Your task to perform on an android device: Open network settings Image 0: 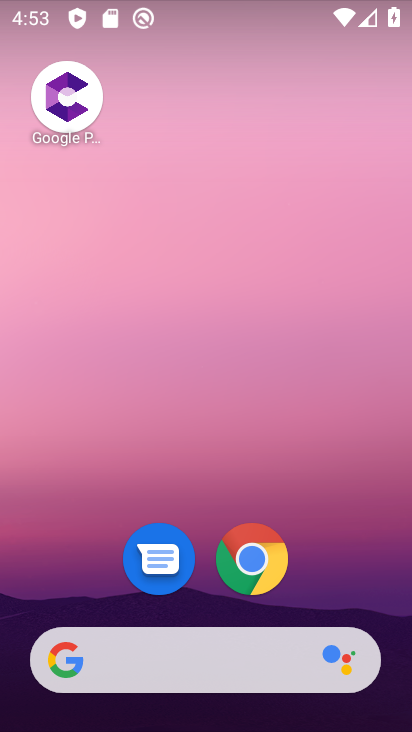
Step 0: drag from (208, 609) to (150, 282)
Your task to perform on an android device: Open network settings Image 1: 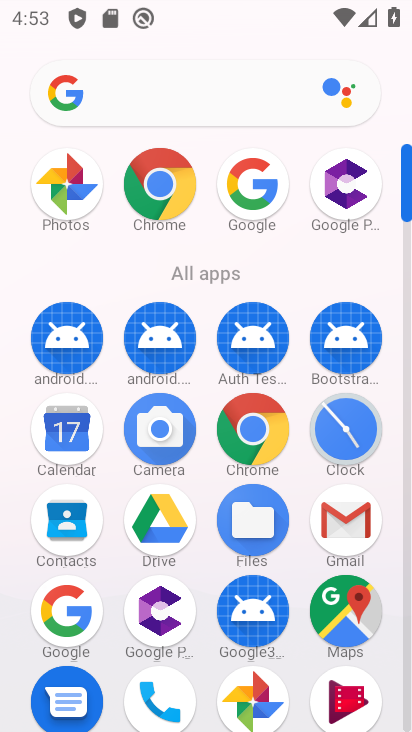
Step 1: drag from (222, 552) to (246, 171)
Your task to perform on an android device: Open network settings Image 2: 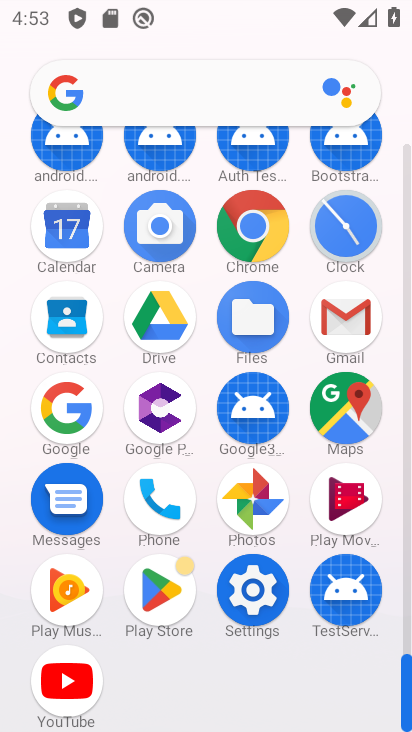
Step 2: click (275, 599)
Your task to perform on an android device: Open network settings Image 3: 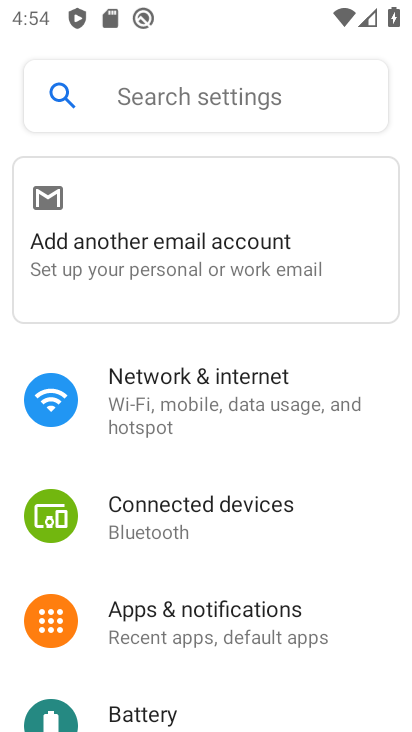
Step 3: click (175, 377)
Your task to perform on an android device: Open network settings Image 4: 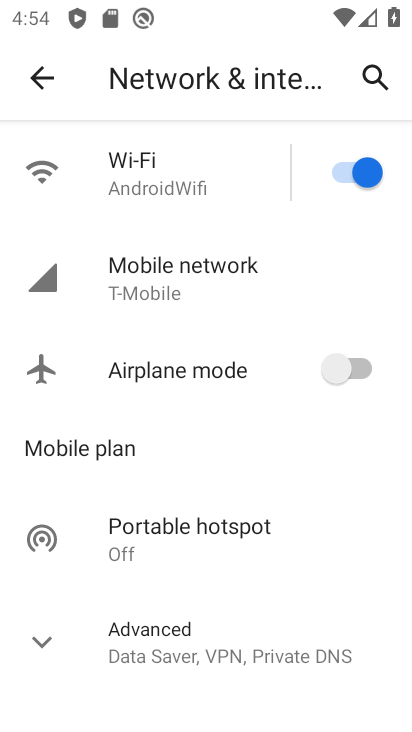
Step 4: task complete